Your task to perform on an android device: allow notifications from all sites in the chrome app Image 0: 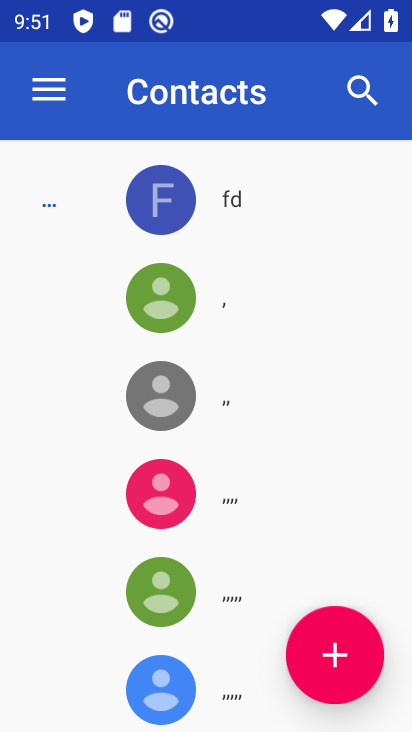
Step 0: drag from (202, 578) to (256, 243)
Your task to perform on an android device: allow notifications from all sites in the chrome app Image 1: 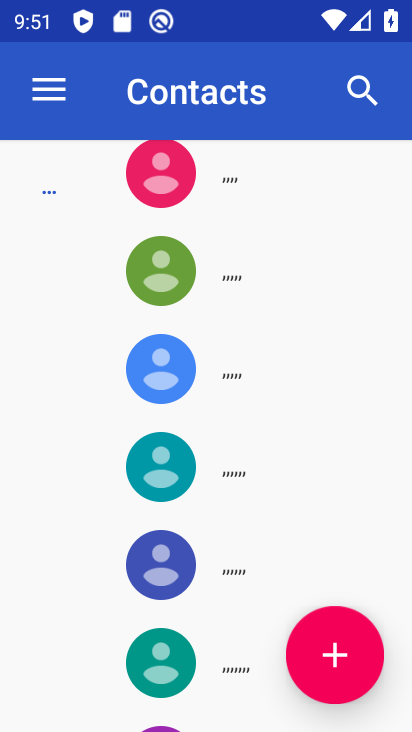
Step 1: press home button
Your task to perform on an android device: allow notifications from all sites in the chrome app Image 2: 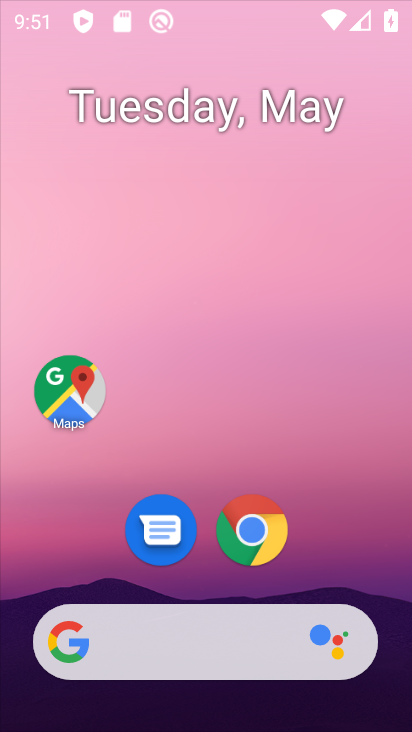
Step 2: drag from (200, 618) to (358, 152)
Your task to perform on an android device: allow notifications from all sites in the chrome app Image 3: 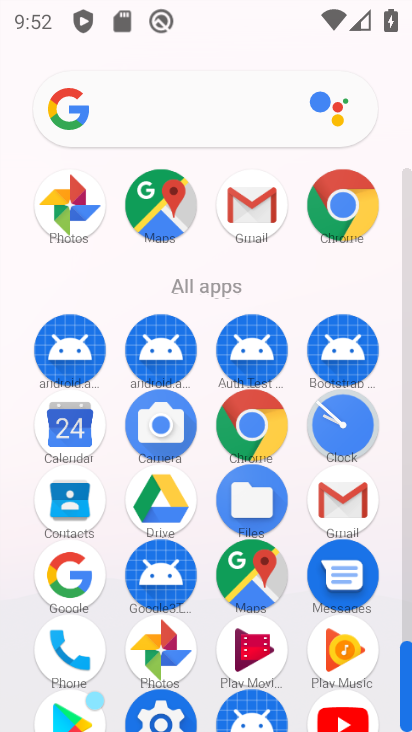
Step 3: click (249, 421)
Your task to perform on an android device: allow notifications from all sites in the chrome app Image 4: 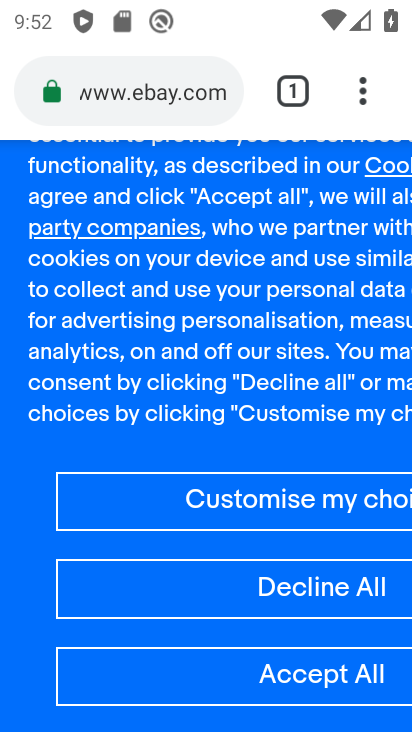
Step 4: click (296, 96)
Your task to perform on an android device: allow notifications from all sites in the chrome app Image 5: 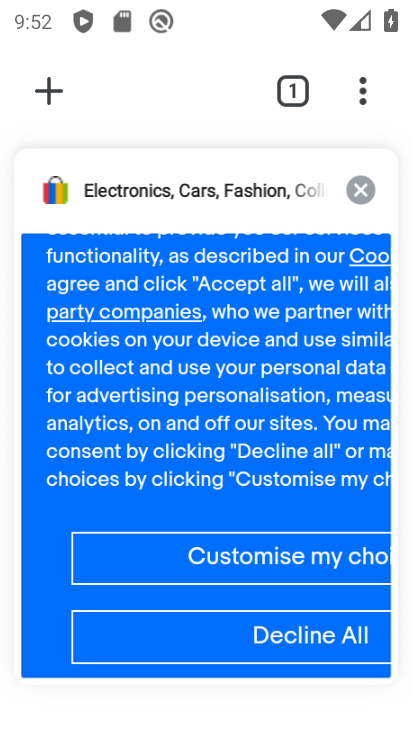
Step 5: click (362, 105)
Your task to perform on an android device: allow notifications from all sites in the chrome app Image 6: 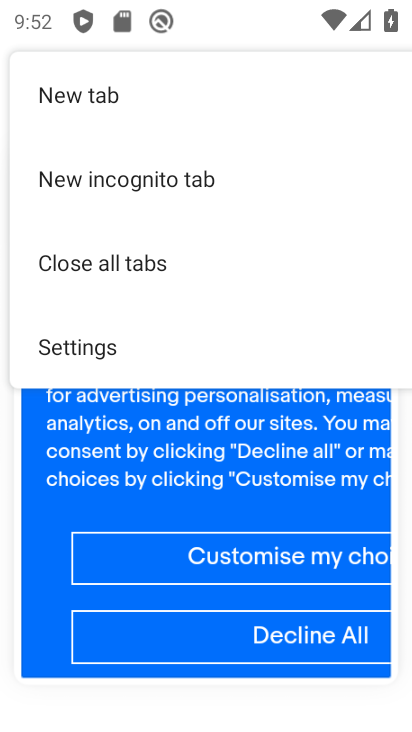
Step 6: click (114, 340)
Your task to perform on an android device: allow notifications from all sites in the chrome app Image 7: 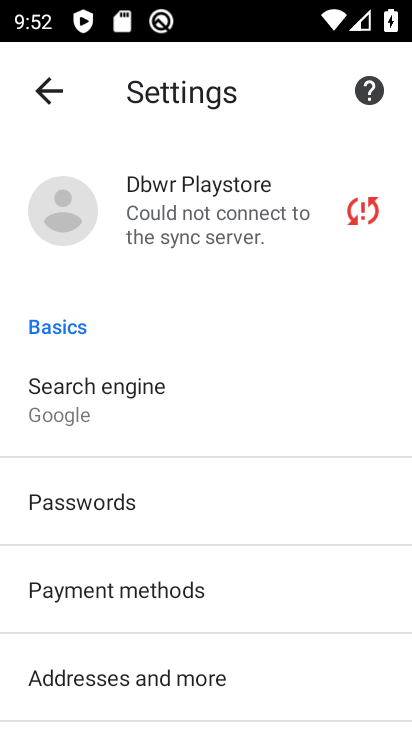
Step 7: drag from (137, 609) to (380, 3)
Your task to perform on an android device: allow notifications from all sites in the chrome app Image 8: 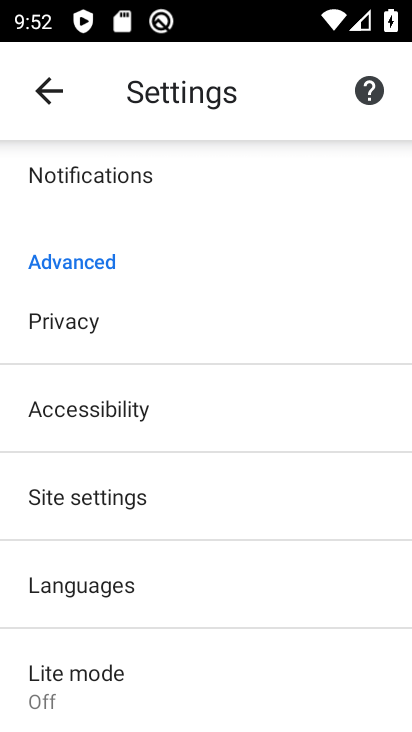
Step 8: click (119, 486)
Your task to perform on an android device: allow notifications from all sites in the chrome app Image 9: 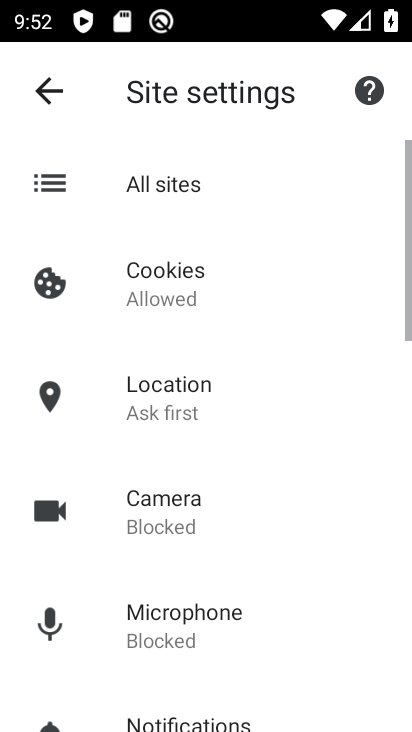
Step 9: drag from (182, 635) to (304, 135)
Your task to perform on an android device: allow notifications from all sites in the chrome app Image 10: 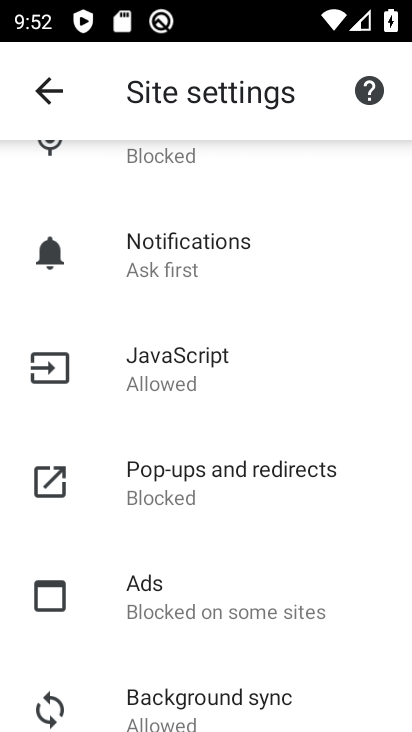
Step 10: click (231, 262)
Your task to perform on an android device: allow notifications from all sites in the chrome app Image 11: 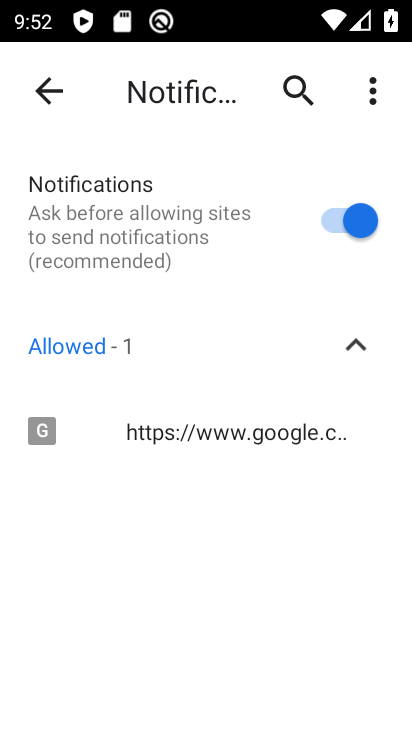
Step 11: task complete